Your task to perform on an android device: set default search engine in the chrome app Image 0: 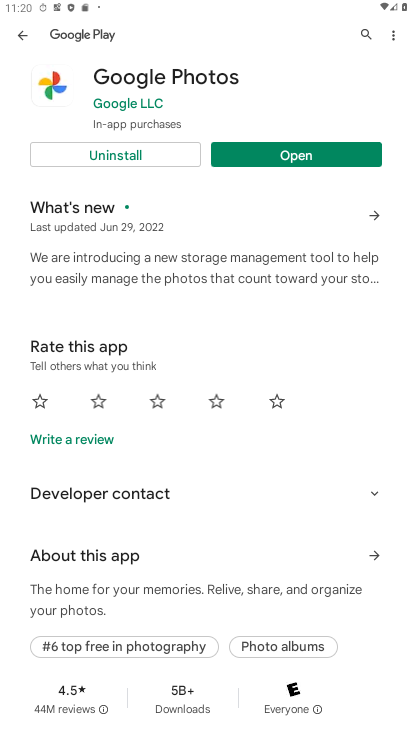
Step 0: press home button
Your task to perform on an android device: set default search engine in the chrome app Image 1: 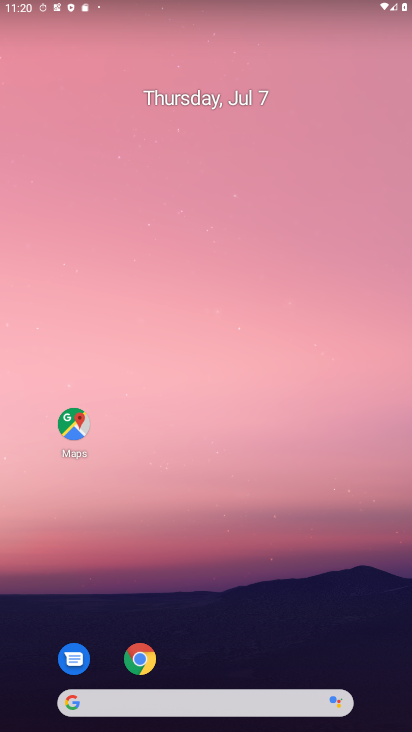
Step 1: click (139, 652)
Your task to perform on an android device: set default search engine in the chrome app Image 2: 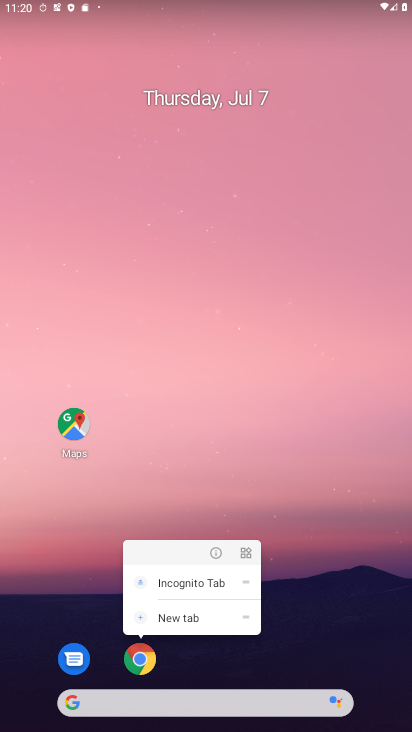
Step 2: click (135, 655)
Your task to perform on an android device: set default search engine in the chrome app Image 3: 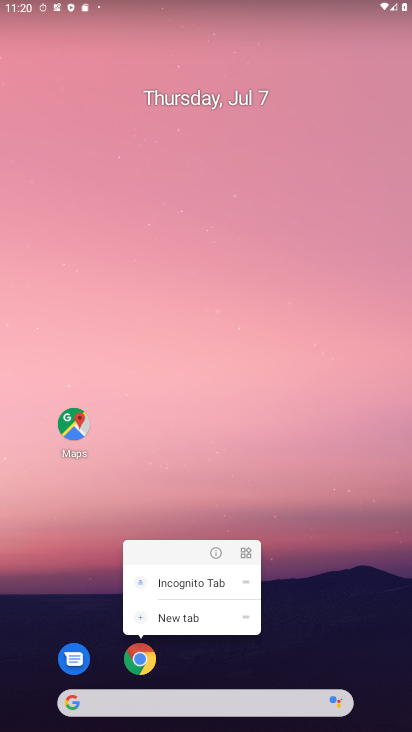
Step 3: click (274, 665)
Your task to perform on an android device: set default search engine in the chrome app Image 4: 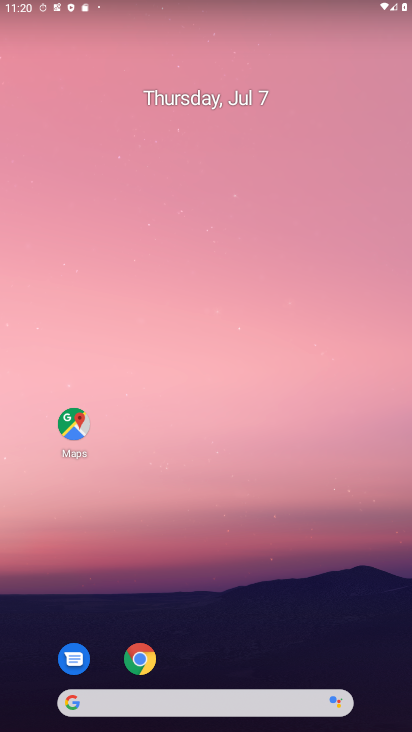
Step 4: click (137, 659)
Your task to perform on an android device: set default search engine in the chrome app Image 5: 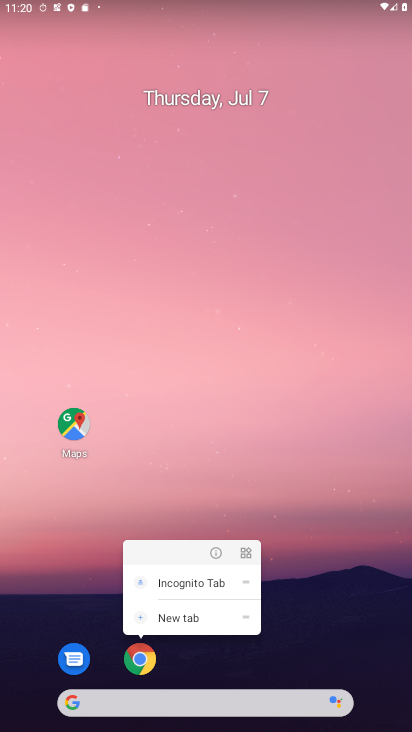
Step 5: click (137, 659)
Your task to perform on an android device: set default search engine in the chrome app Image 6: 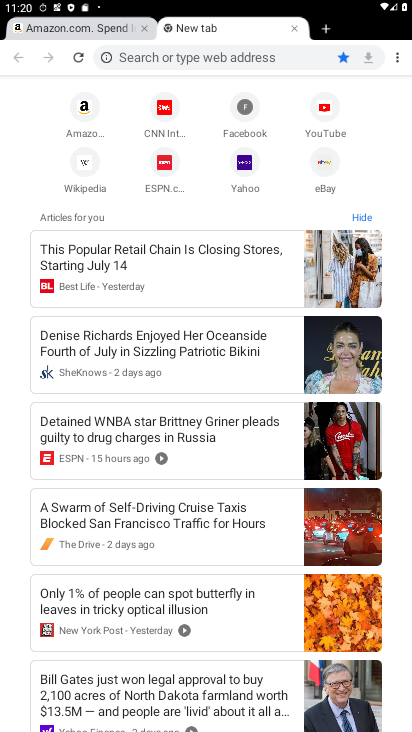
Step 6: click (397, 56)
Your task to perform on an android device: set default search engine in the chrome app Image 7: 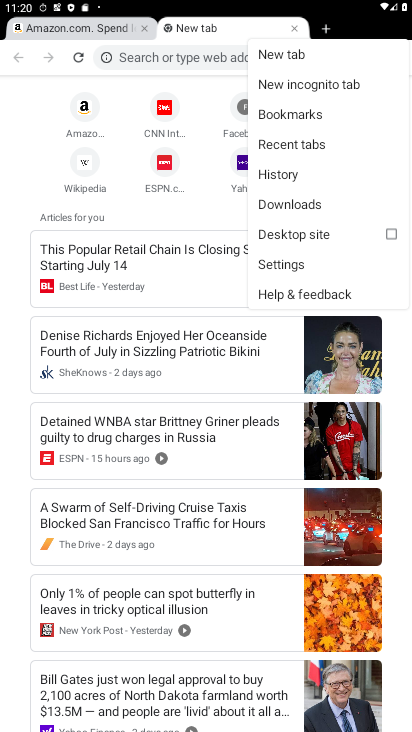
Step 7: click (302, 266)
Your task to perform on an android device: set default search engine in the chrome app Image 8: 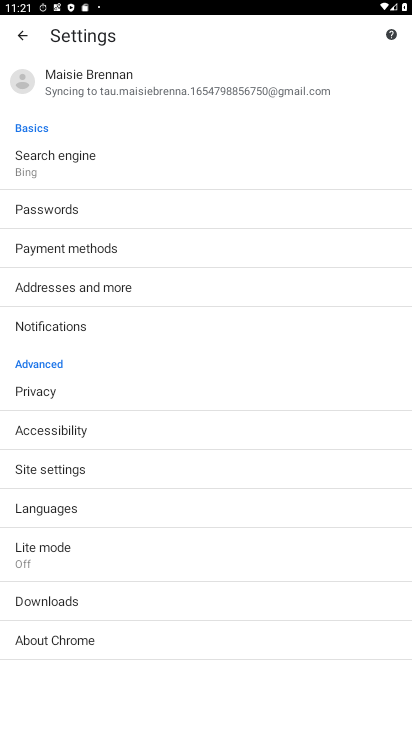
Step 8: click (79, 166)
Your task to perform on an android device: set default search engine in the chrome app Image 9: 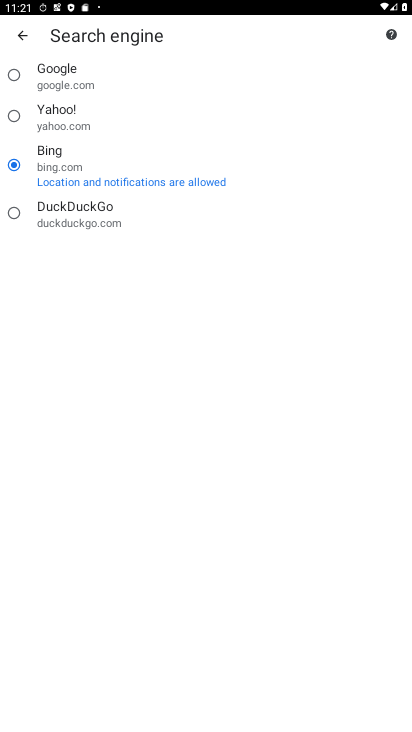
Step 9: click (39, 109)
Your task to perform on an android device: set default search engine in the chrome app Image 10: 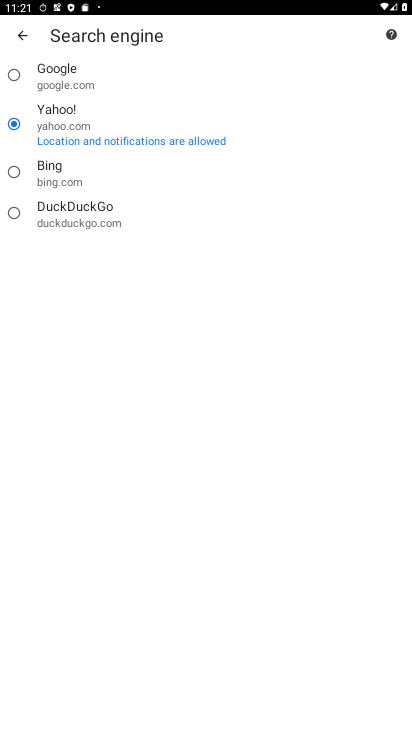
Step 10: task complete